Your task to perform on an android device: Is it going to rain tomorrow? Image 0: 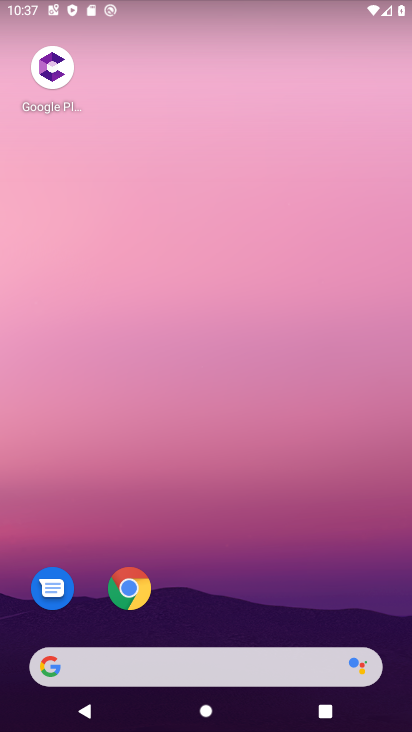
Step 0: drag from (194, 626) to (191, 103)
Your task to perform on an android device: Is it going to rain tomorrow? Image 1: 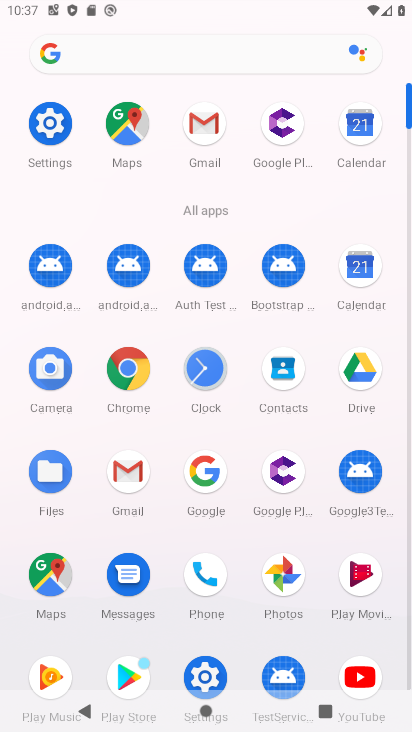
Step 1: click (207, 482)
Your task to perform on an android device: Is it going to rain tomorrow? Image 2: 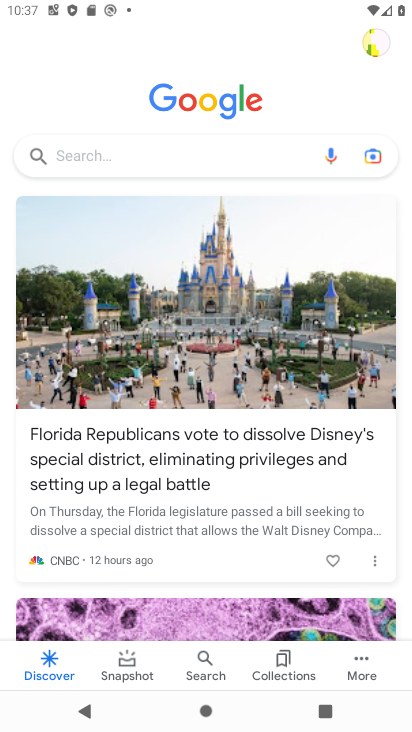
Step 2: click (159, 157)
Your task to perform on an android device: Is it going to rain tomorrow? Image 3: 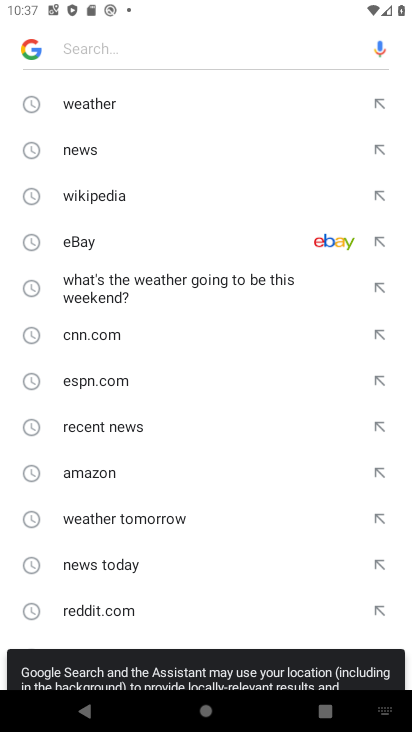
Step 3: click (105, 109)
Your task to perform on an android device: Is it going to rain tomorrow? Image 4: 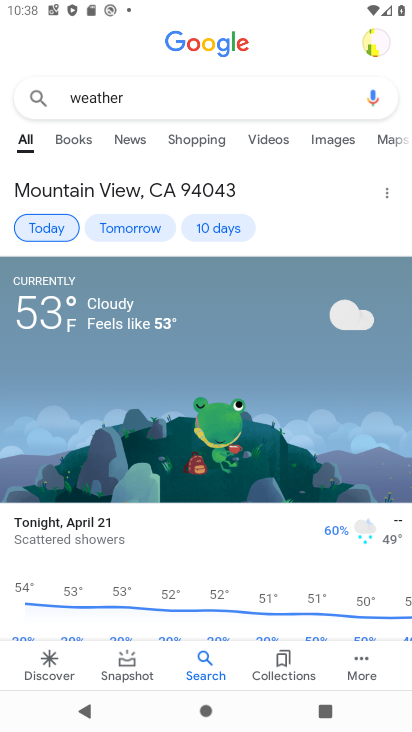
Step 4: click (124, 229)
Your task to perform on an android device: Is it going to rain tomorrow? Image 5: 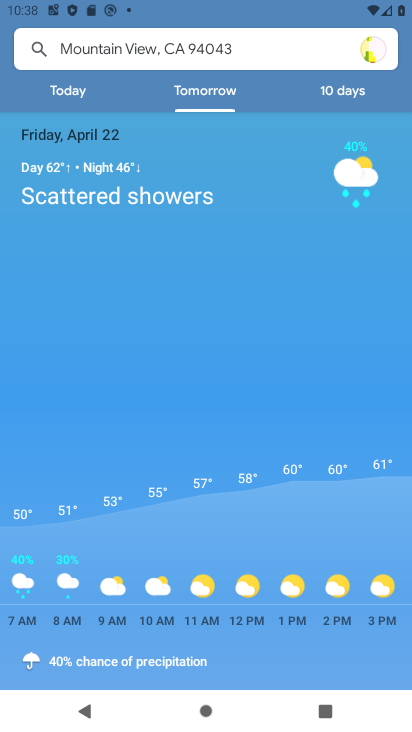
Step 5: task complete